Your task to perform on an android device: allow cookies in the chrome app Image 0: 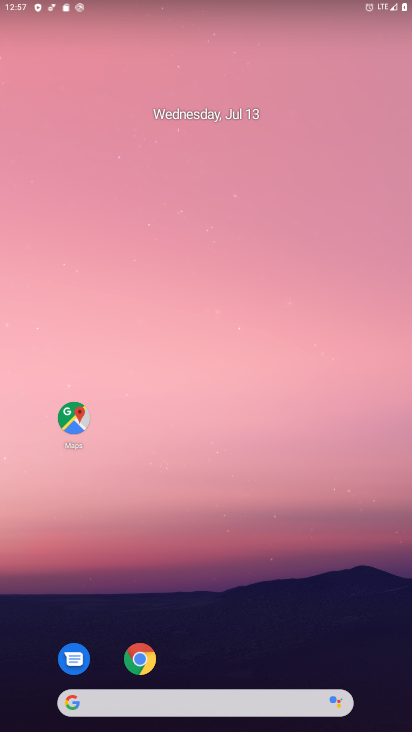
Step 0: click (136, 664)
Your task to perform on an android device: allow cookies in the chrome app Image 1: 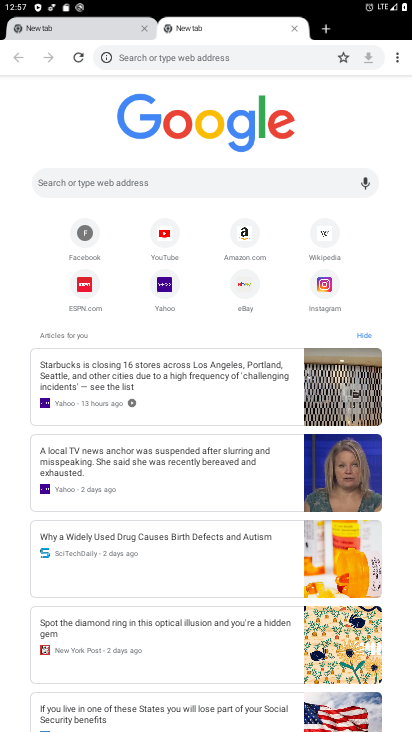
Step 1: click (395, 58)
Your task to perform on an android device: allow cookies in the chrome app Image 2: 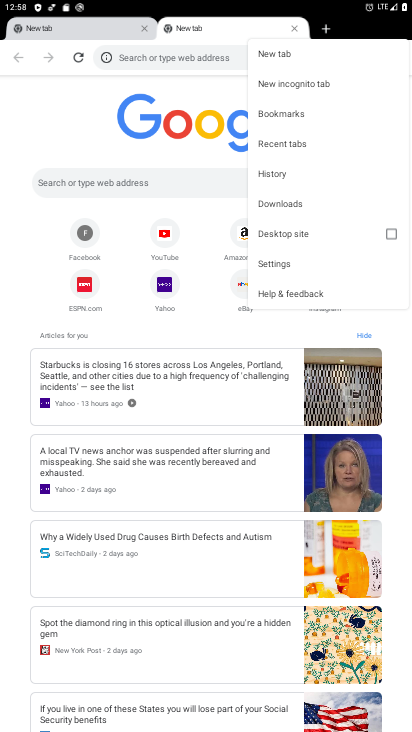
Step 2: click (274, 264)
Your task to perform on an android device: allow cookies in the chrome app Image 3: 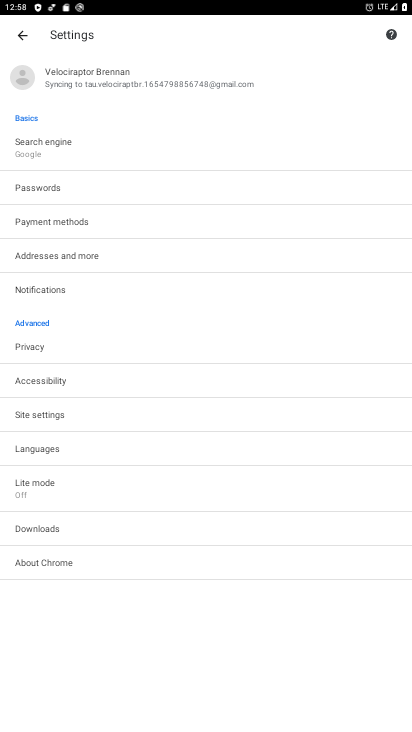
Step 3: click (42, 412)
Your task to perform on an android device: allow cookies in the chrome app Image 4: 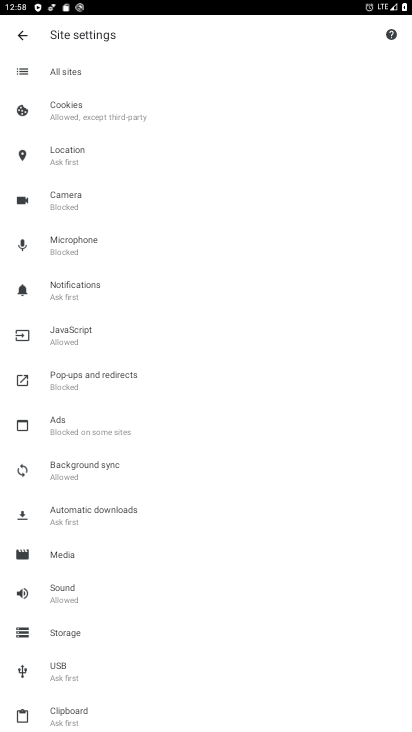
Step 4: click (102, 112)
Your task to perform on an android device: allow cookies in the chrome app Image 5: 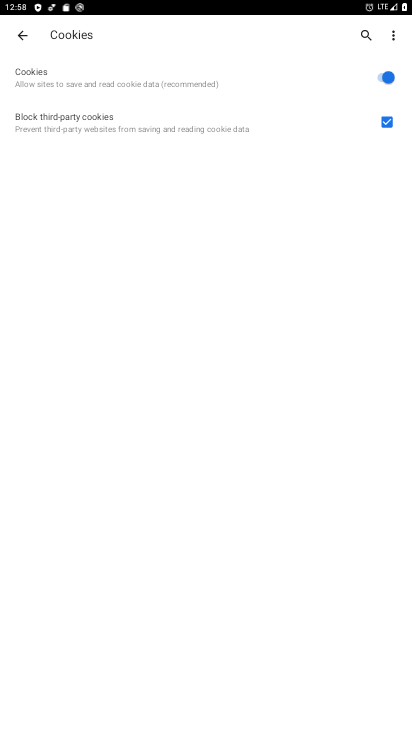
Step 5: task complete